Your task to perform on an android device: Open the calendar and show me this week's events? Image 0: 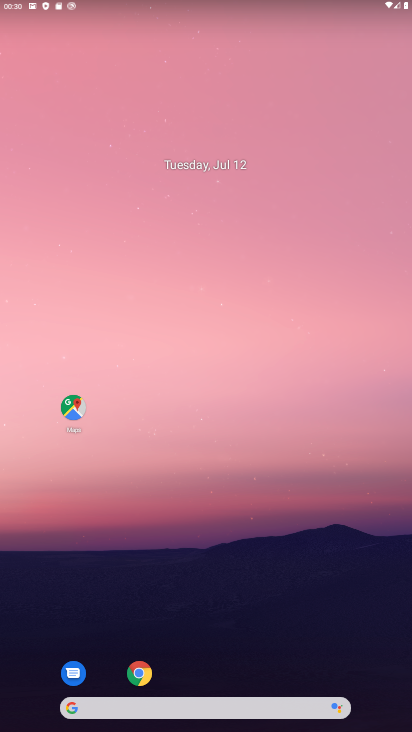
Step 0: press home button
Your task to perform on an android device: Open the calendar and show me this week's events? Image 1: 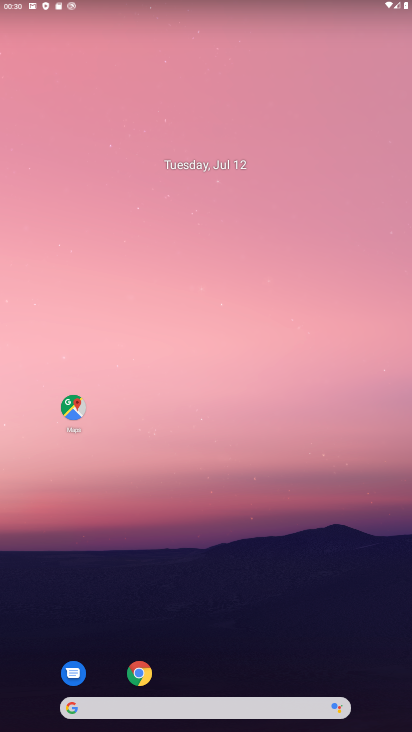
Step 1: drag from (225, 640) to (205, 121)
Your task to perform on an android device: Open the calendar and show me this week's events? Image 2: 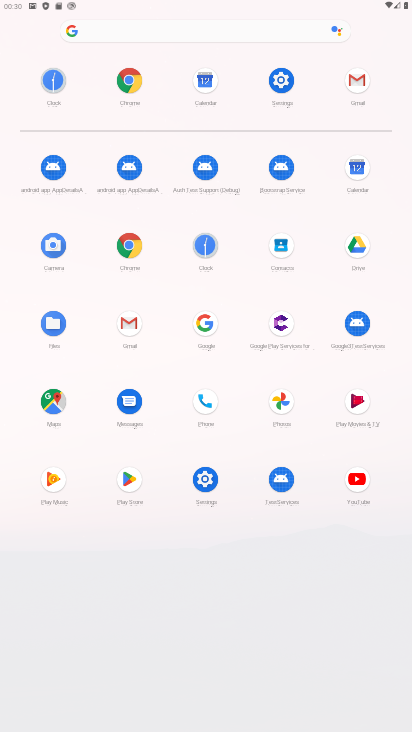
Step 2: click (356, 174)
Your task to perform on an android device: Open the calendar and show me this week's events? Image 3: 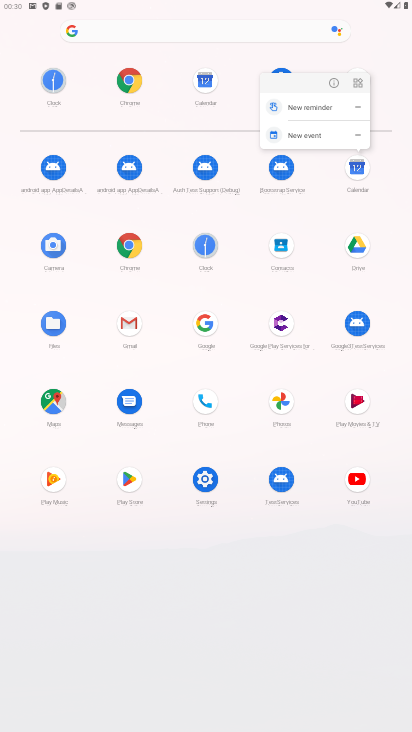
Step 3: click (356, 169)
Your task to perform on an android device: Open the calendar and show me this week's events? Image 4: 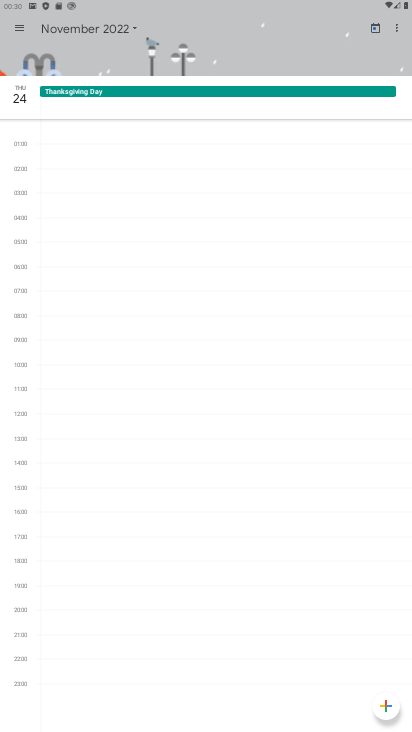
Step 4: click (18, 29)
Your task to perform on an android device: Open the calendar and show me this week's events? Image 5: 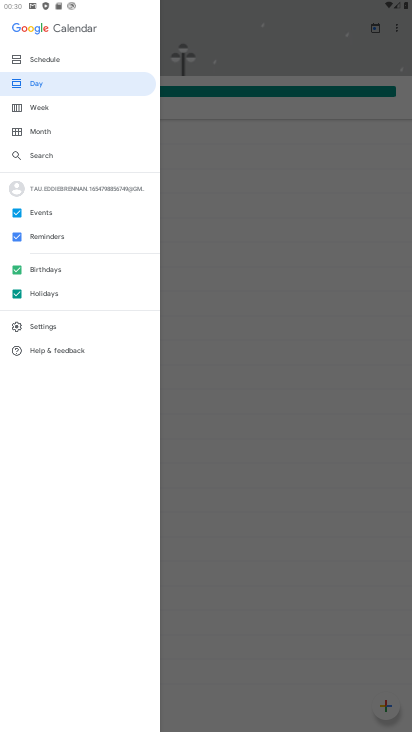
Step 5: click (37, 59)
Your task to perform on an android device: Open the calendar and show me this week's events? Image 6: 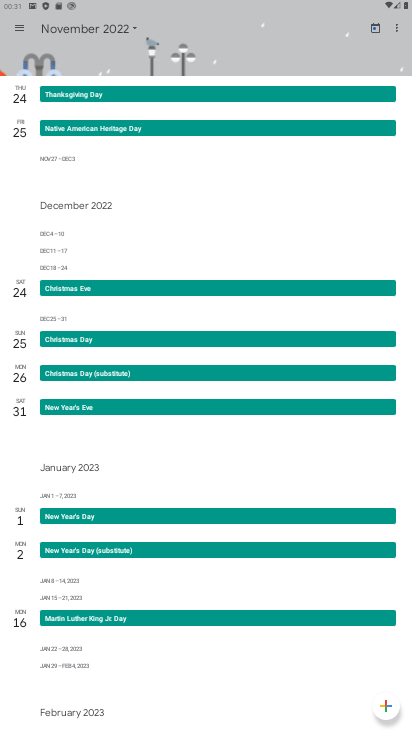
Step 6: task complete